Your task to perform on an android device: change keyboard looks Image 0: 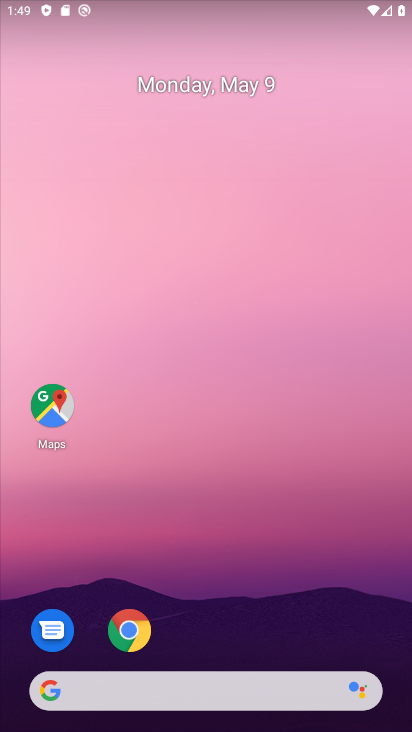
Step 0: drag from (244, 632) to (201, 7)
Your task to perform on an android device: change keyboard looks Image 1: 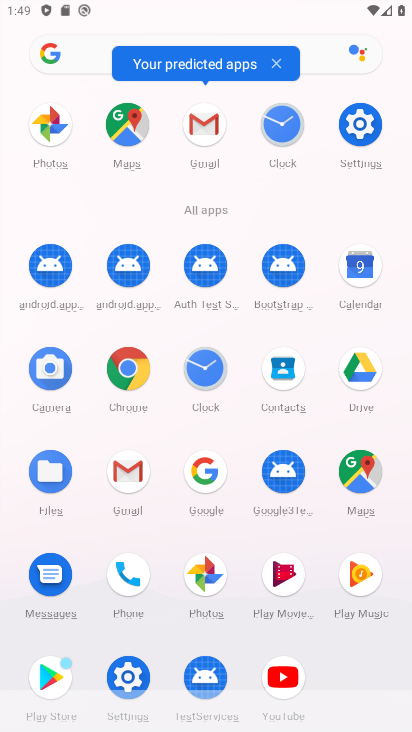
Step 1: click (363, 125)
Your task to perform on an android device: change keyboard looks Image 2: 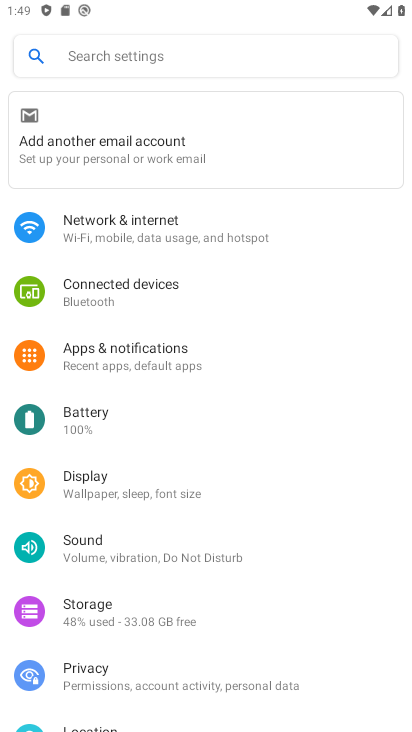
Step 2: drag from (142, 458) to (170, 354)
Your task to perform on an android device: change keyboard looks Image 3: 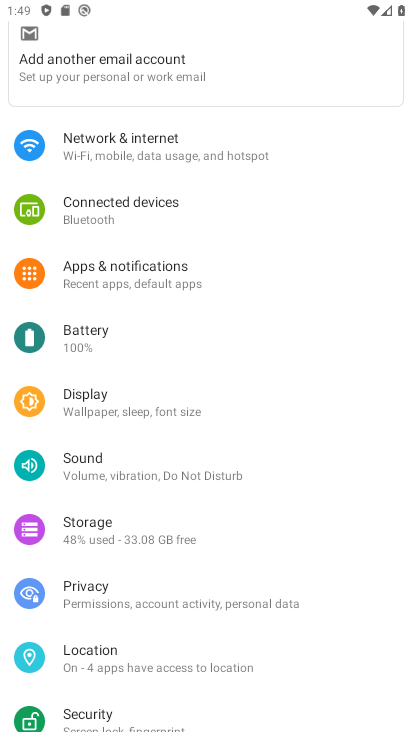
Step 3: drag from (149, 501) to (188, 406)
Your task to perform on an android device: change keyboard looks Image 4: 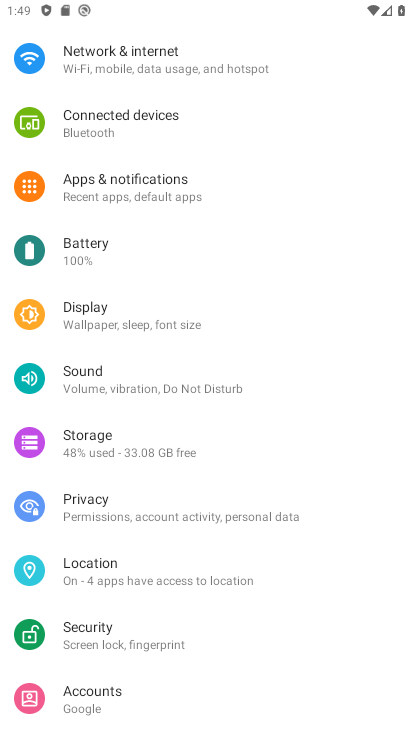
Step 4: drag from (133, 547) to (188, 452)
Your task to perform on an android device: change keyboard looks Image 5: 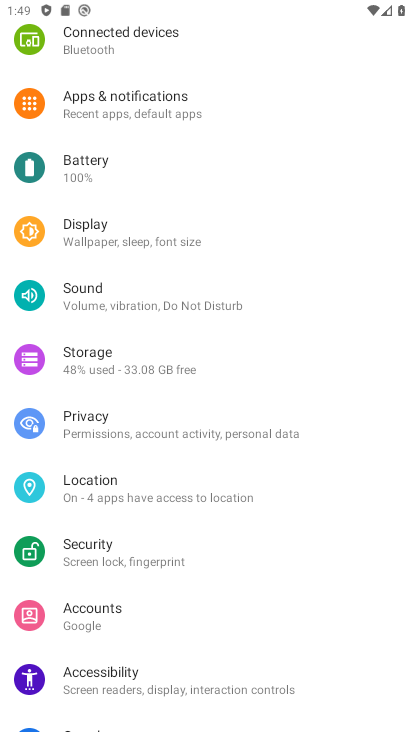
Step 5: drag from (139, 589) to (205, 474)
Your task to perform on an android device: change keyboard looks Image 6: 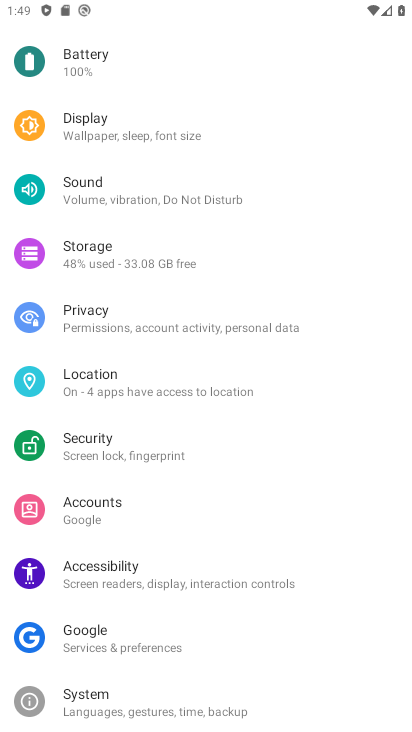
Step 6: drag from (176, 550) to (243, 428)
Your task to perform on an android device: change keyboard looks Image 7: 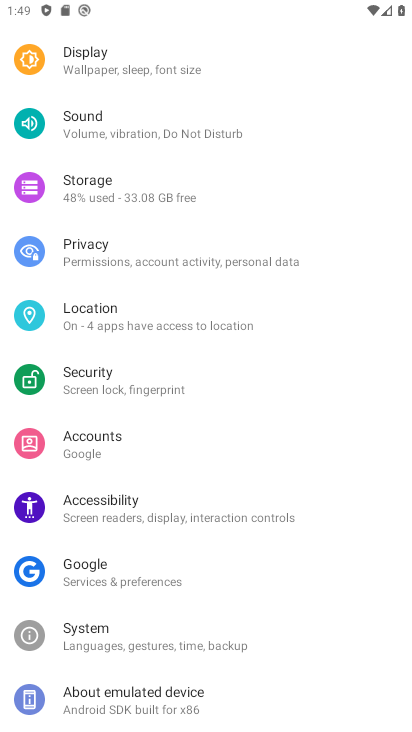
Step 7: click (136, 648)
Your task to perform on an android device: change keyboard looks Image 8: 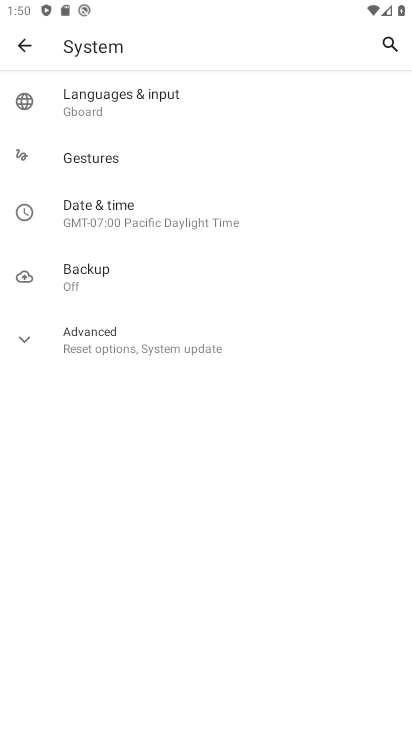
Step 8: click (87, 97)
Your task to perform on an android device: change keyboard looks Image 9: 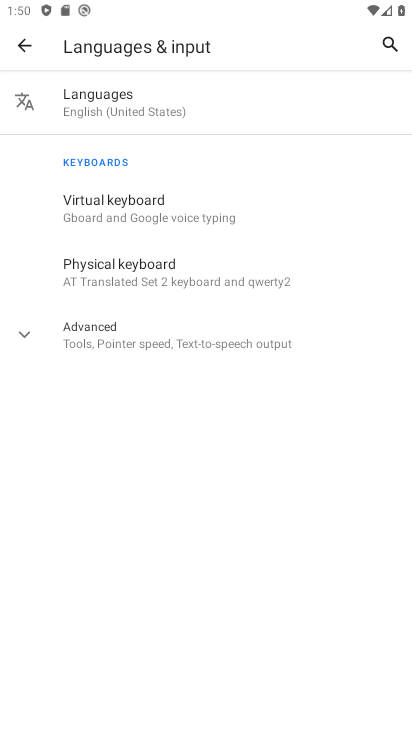
Step 9: click (124, 205)
Your task to perform on an android device: change keyboard looks Image 10: 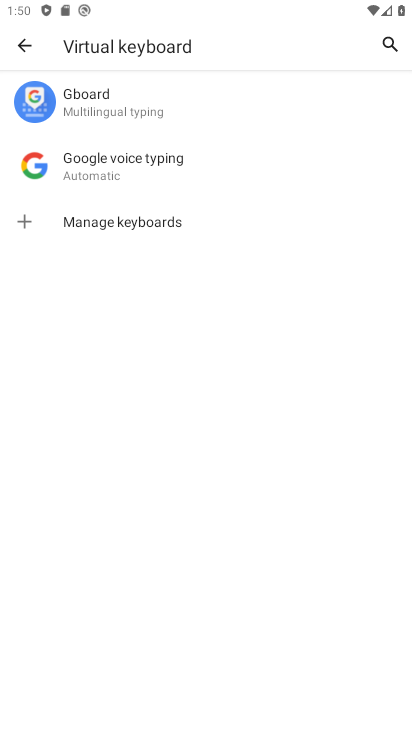
Step 10: click (83, 94)
Your task to perform on an android device: change keyboard looks Image 11: 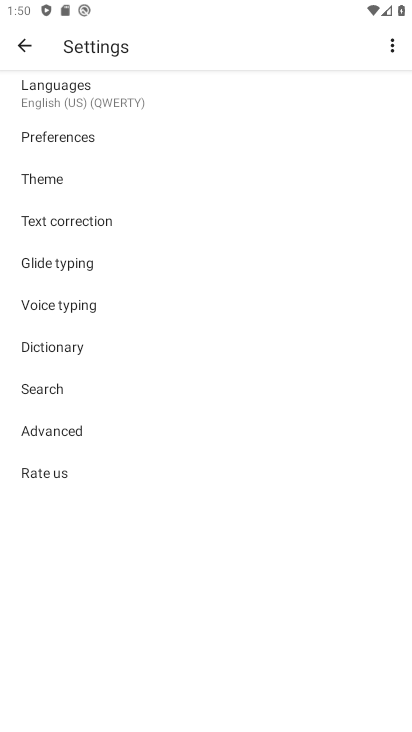
Step 11: click (45, 179)
Your task to perform on an android device: change keyboard looks Image 12: 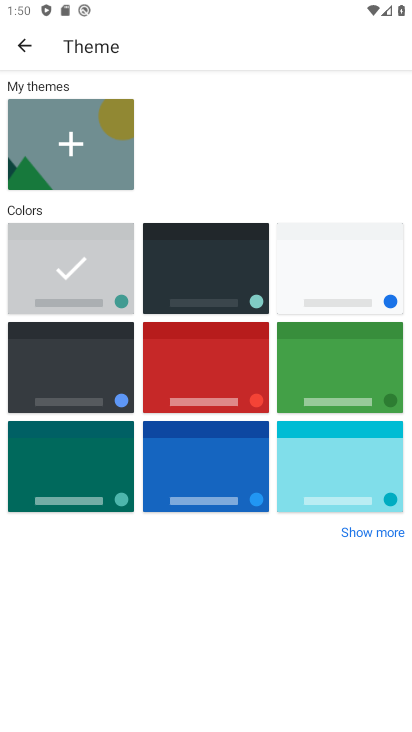
Step 12: click (343, 358)
Your task to perform on an android device: change keyboard looks Image 13: 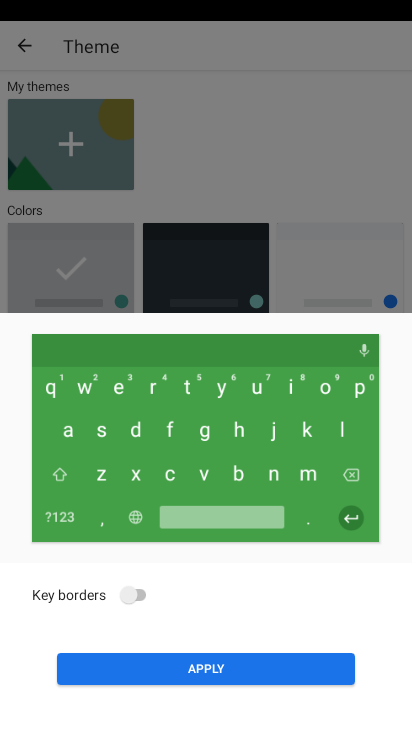
Step 13: click (120, 600)
Your task to perform on an android device: change keyboard looks Image 14: 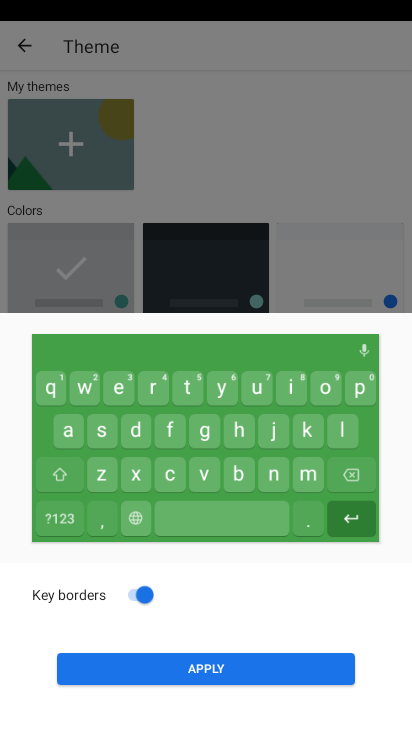
Step 14: click (163, 662)
Your task to perform on an android device: change keyboard looks Image 15: 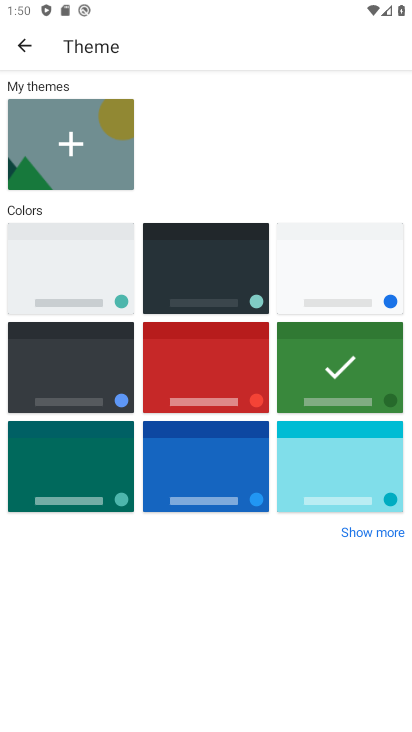
Step 15: task complete